Your task to perform on an android device: Open the phone app and click the voicemail tab. Image 0: 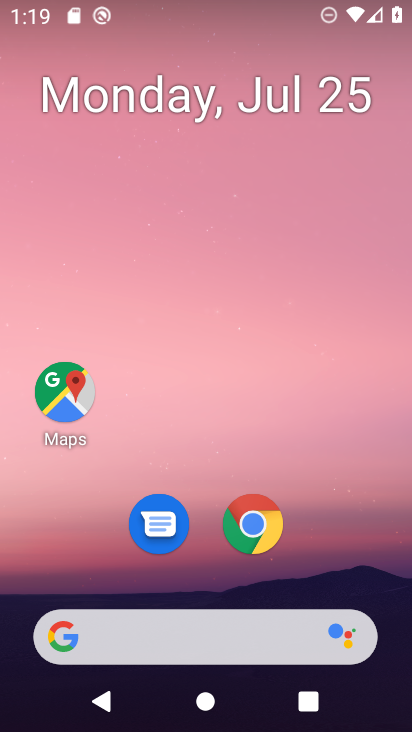
Step 0: press home button
Your task to perform on an android device: Open the phone app and click the voicemail tab. Image 1: 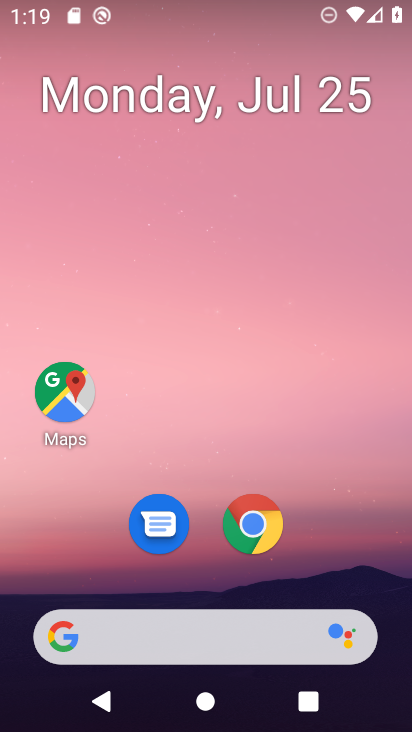
Step 1: drag from (192, 645) to (327, 101)
Your task to perform on an android device: Open the phone app and click the voicemail tab. Image 2: 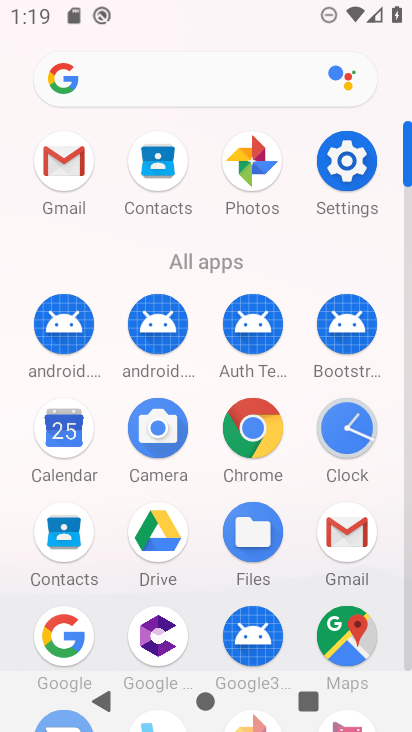
Step 2: drag from (199, 582) to (361, 185)
Your task to perform on an android device: Open the phone app and click the voicemail tab. Image 3: 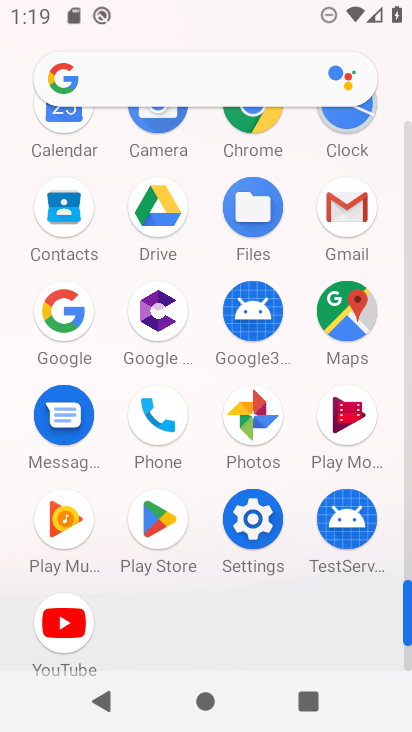
Step 3: click (157, 415)
Your task to perform on an android device: Open the phone app and click the voicemail tab. Image 4: 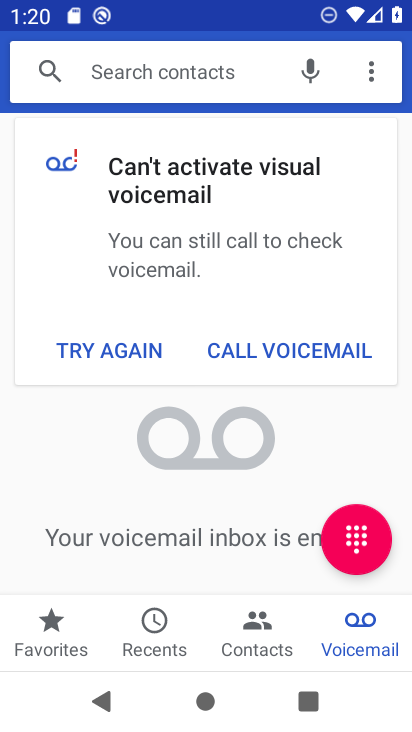
Step 4: task complete